Your task to perform on an android device: see sites visited before in the chrome app Image 0: 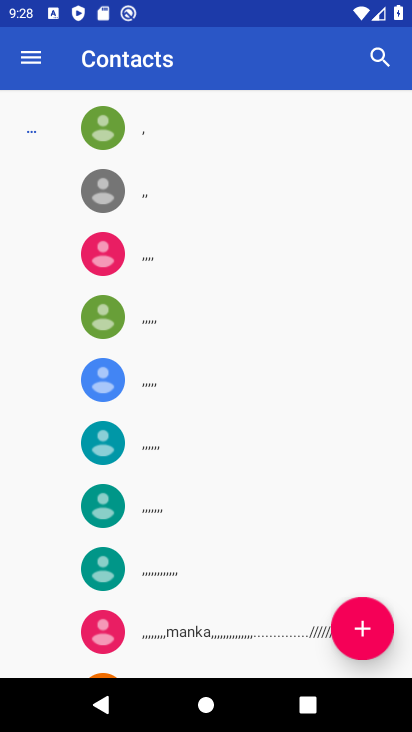
Step 0: press home button
Your task to perform on an android device: see sites visited before in the chrome app Image 1: 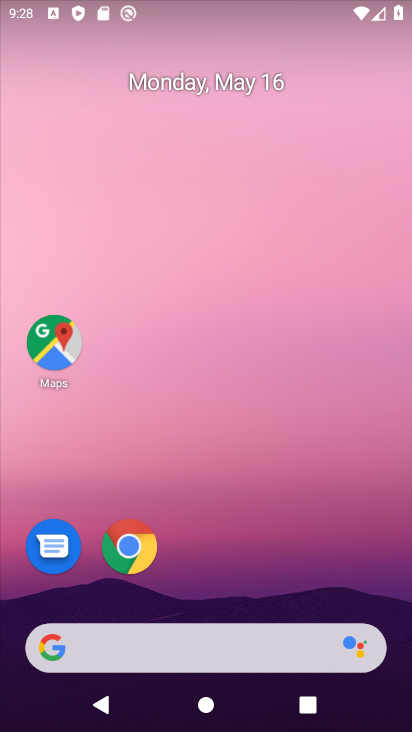
Step 1: click (152, 554)
Your task to perform on an android device: see sites visited before in the chrome app Image 2: 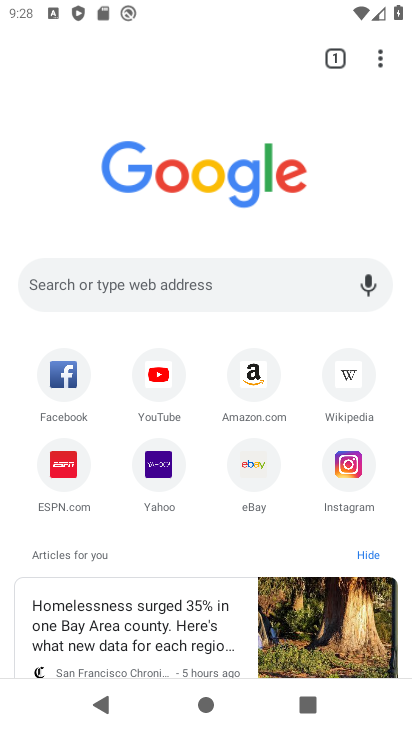
Step 2: click (391, 46)
Your task to perform on an android device: see sites visited before in the chrome app Image 3: 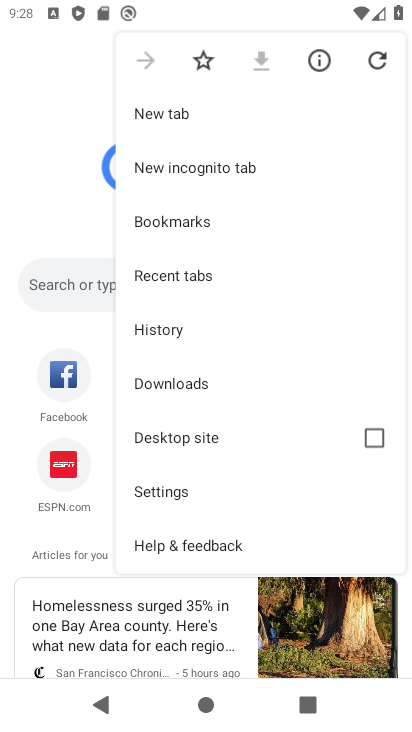
Step 3: click (191, 325)
Your task to perform on an android device: see sites visited before in the chrome app Image 4: 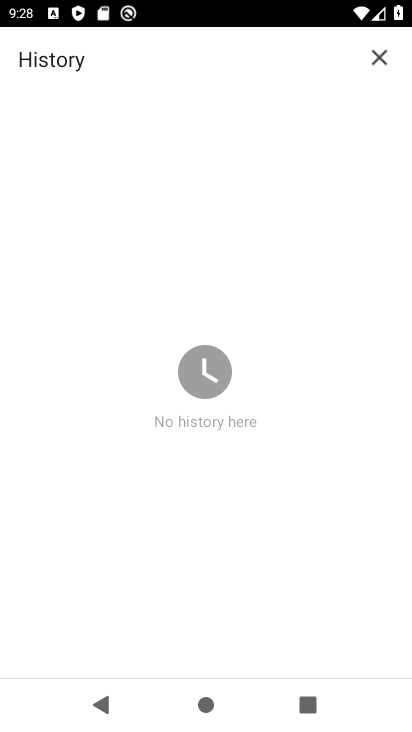
Step 4: task complete